Your task to perform on an android device: open chrome and create a bookmark for the current page Image 0: 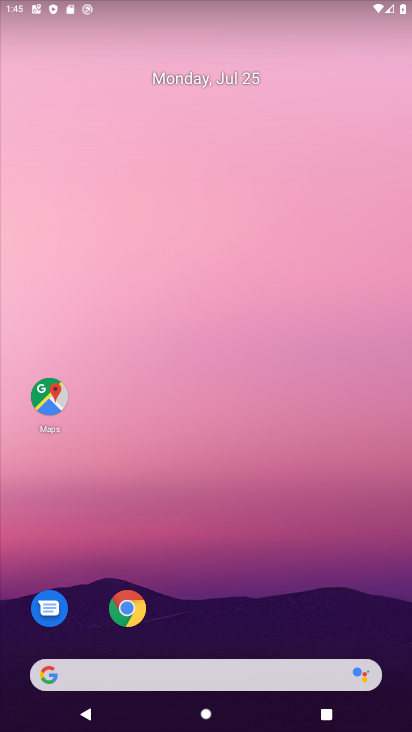
Step 0: click (128, 609)
Your task to perform on an android device: open chrome and create a bookmark for the current page Image 1: 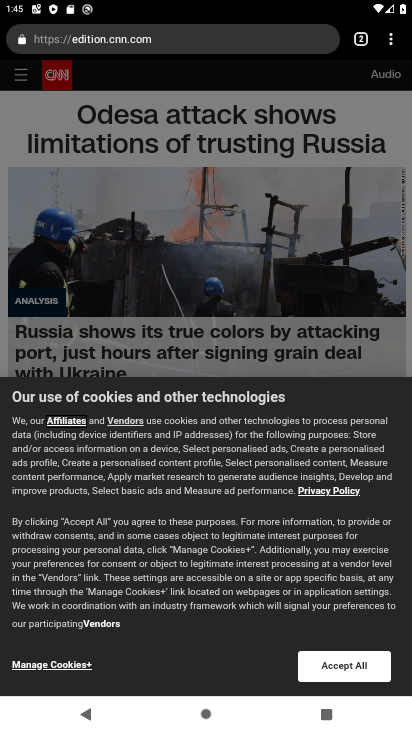
Step 1: task complete